Your task to perform on an android device: turn on wifi Image 0: 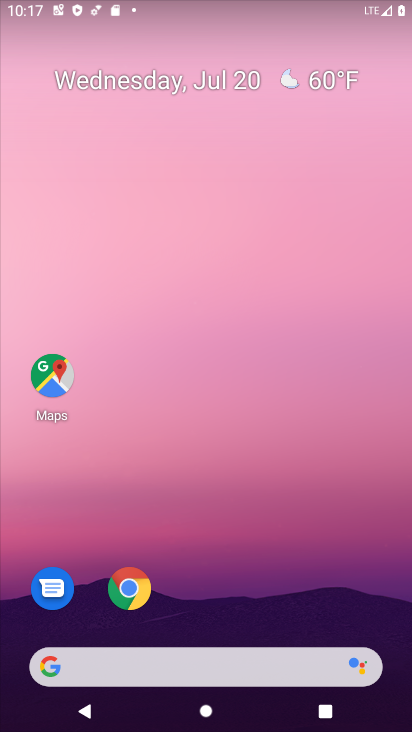
Step 0: drag from (196, 631) to (211, 37)
Your task to perform on an android device: turn on wifi Image 1: 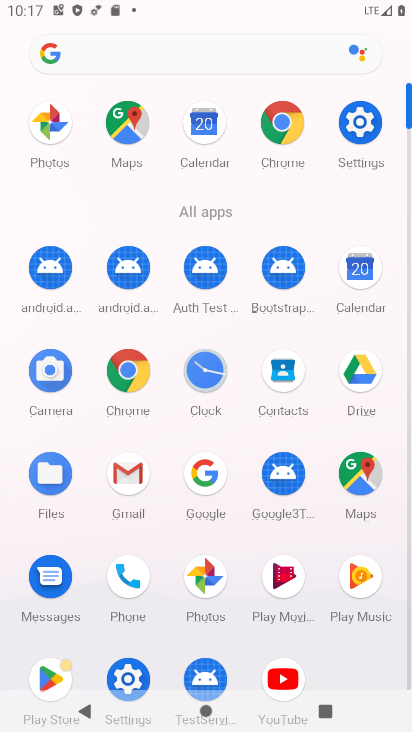
Step 1: click (359, 150)
Your task to perform on an android device: turn on wifi Image 2: 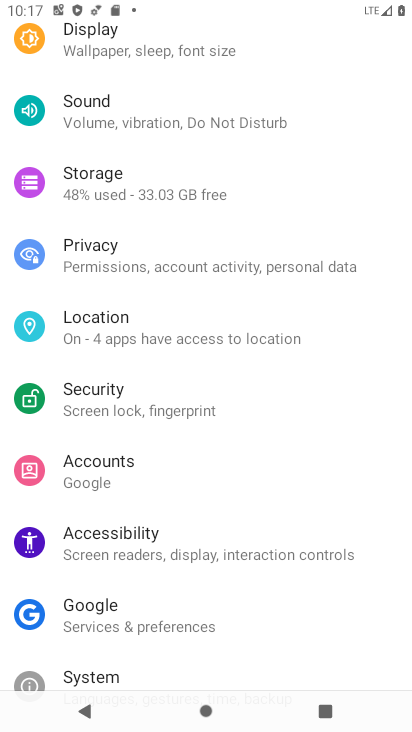
Step 2: drag from (255, 108) to (164, 722)
Your task to perform on an android device: turn on wifi Image 3: 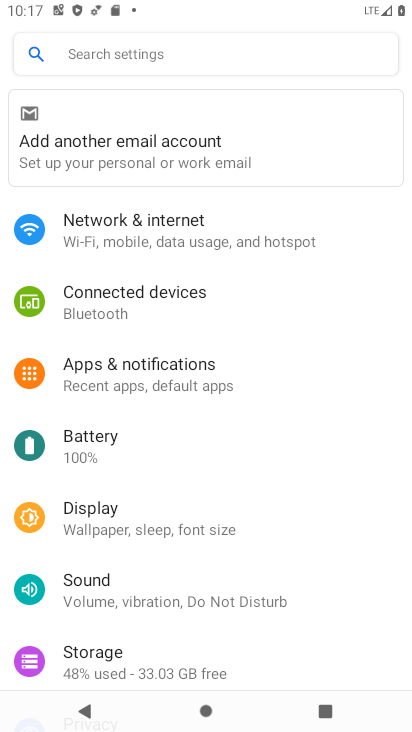
Step 3: click (119, 237)
Your task to perform on an android device: turn on wifi Image 4: 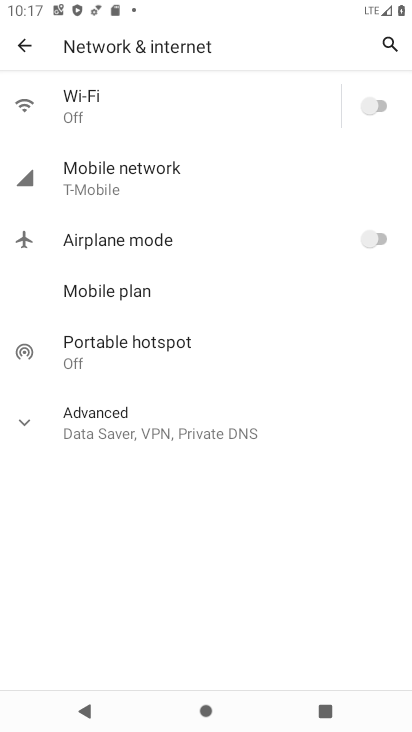
Step 4: click (392, 106)
Your task to perform on an android device: turn on wifi Image 5: 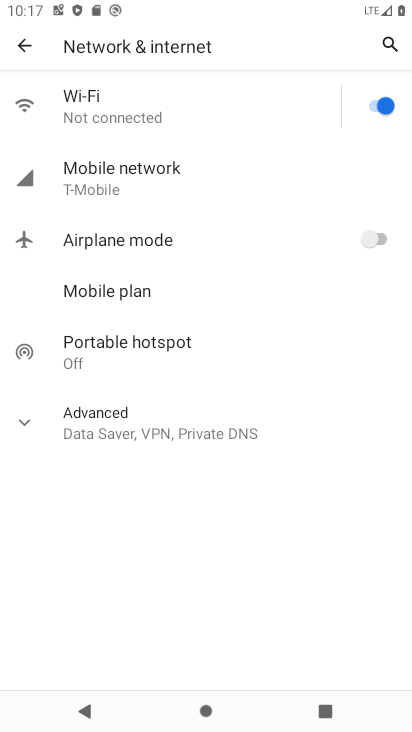
Step 5: task complete